Your task to perform on an android device: Open the web browser Image 0: 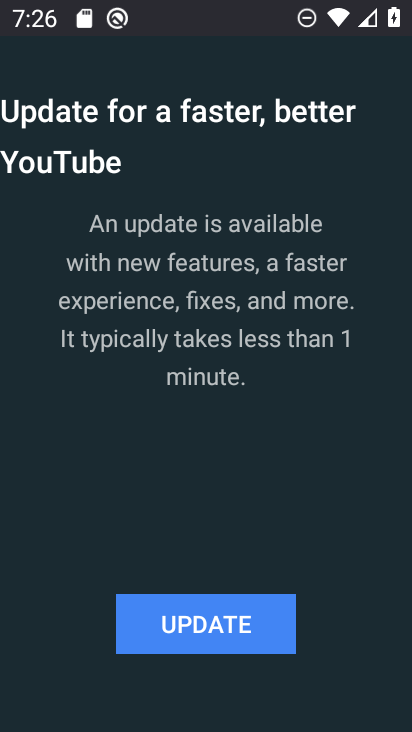
Step 0: press home button
Your task to perform on an android device: Open the web browser Image 1: 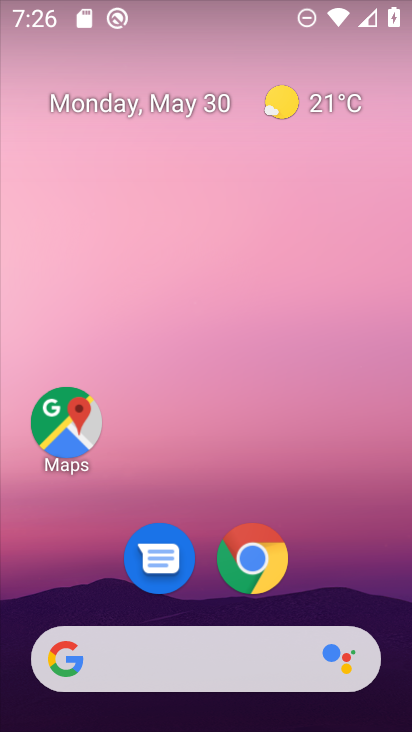
Step 1: click (254, 555)
Your task to perform on an android device: Open the web browser Image 2: 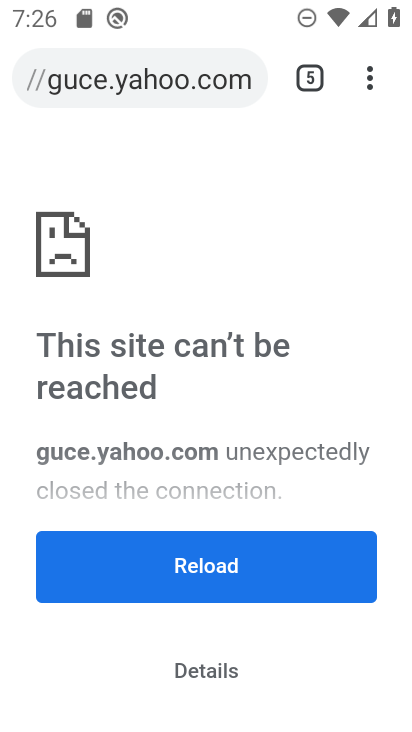
Step 2: click (373, 71)
Your task to perform on an android device: Open the web browser Image 3: 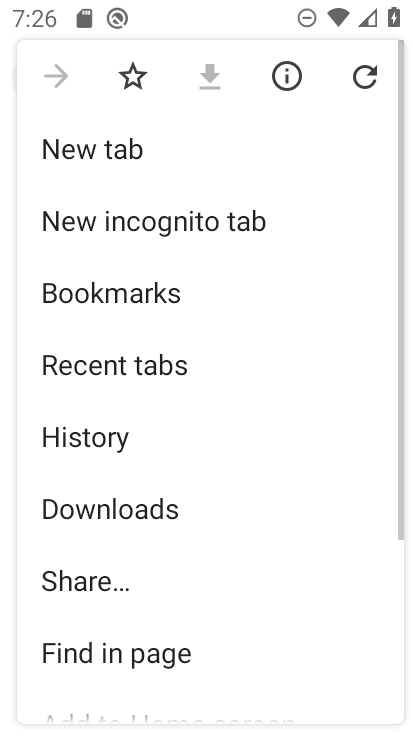
Step 3: click (122, 148)
Your task to perform on an android device: Open the web browser Image 4: 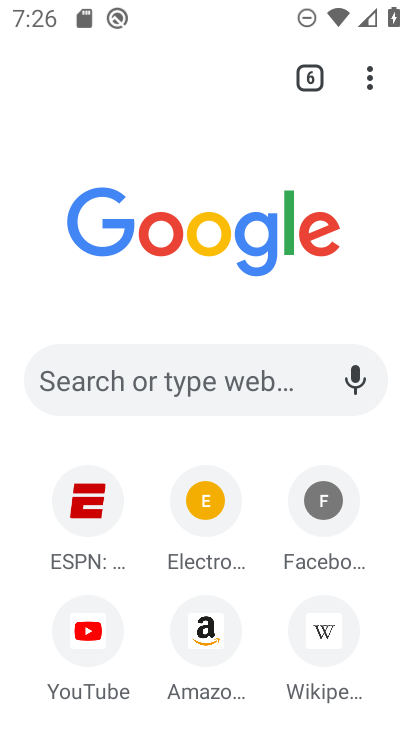
Step 4: task complete